Your task to perform on an android device: Empty the shopping cart on amazon.com. Image 0: 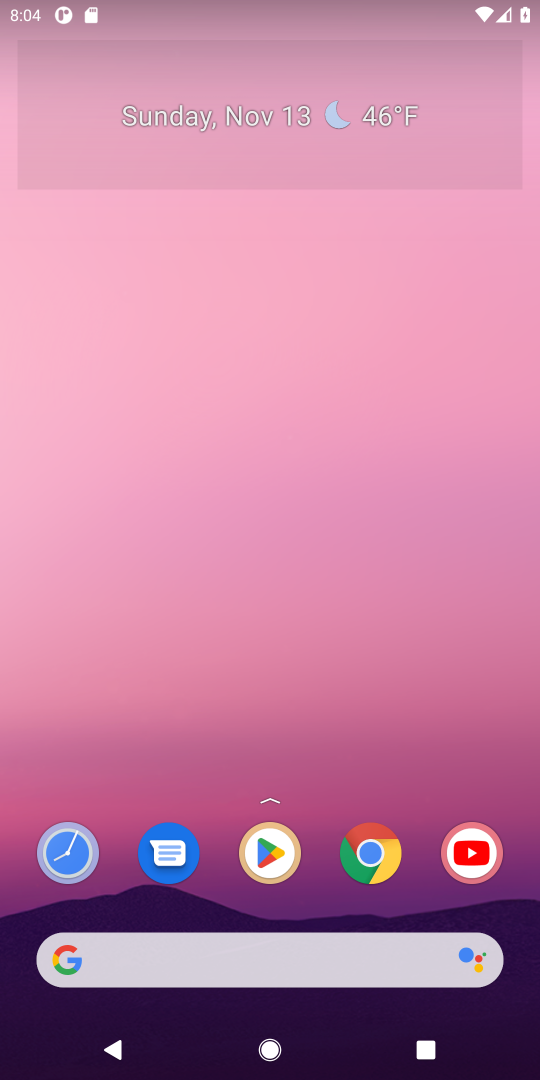
Step 0: press home button
Your task to perform on an android device: Empty the shopping cart on amazon.com. Image 1: 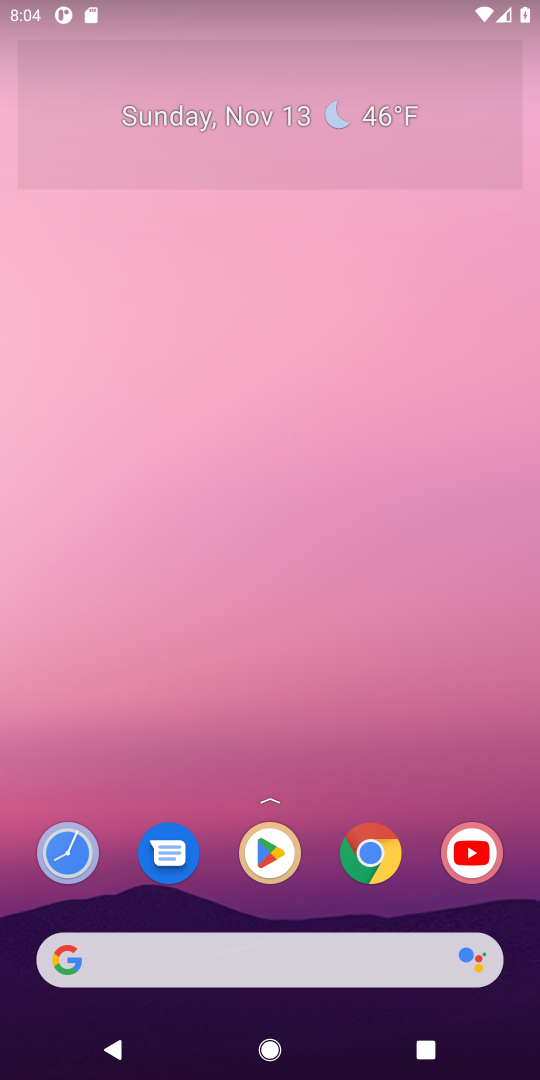
Step 1: click (278, 965)
Your task to perform on an android device: Empty the shopping cart on amazon.com. Image 2: 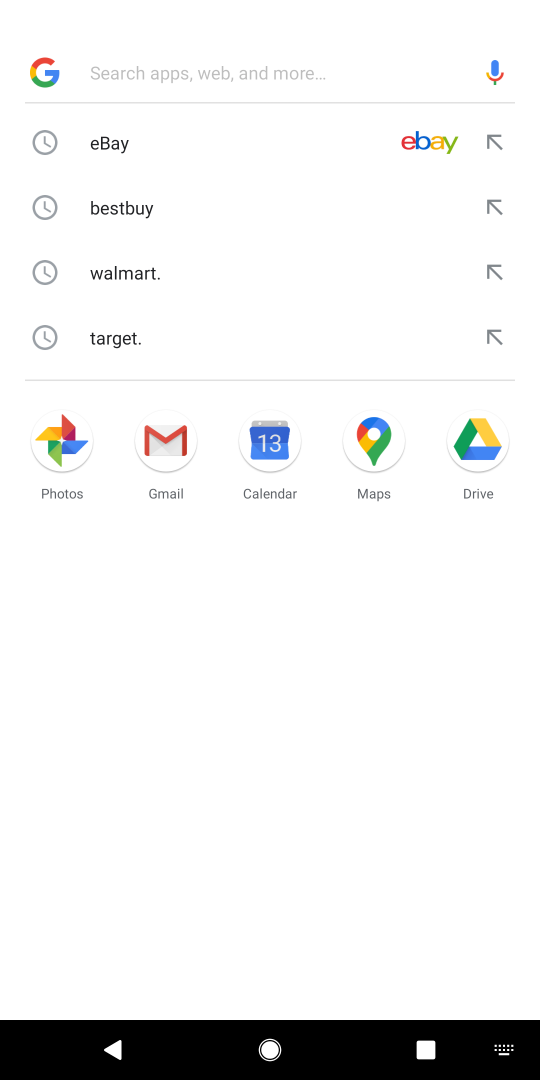
Step 2: type "amazon.com."
Your task to perform on an android device: Empty the shopping cart on amazon.com. Image 3: 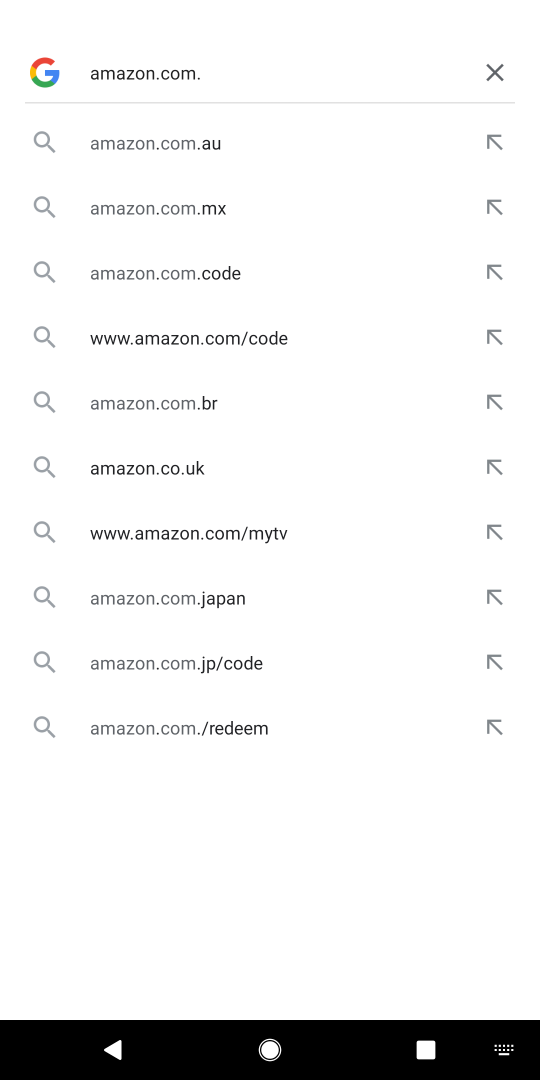
Step 3: press enter
Your task to perform on an android device: Empty the shopping cart on amazon.com. Image 4: 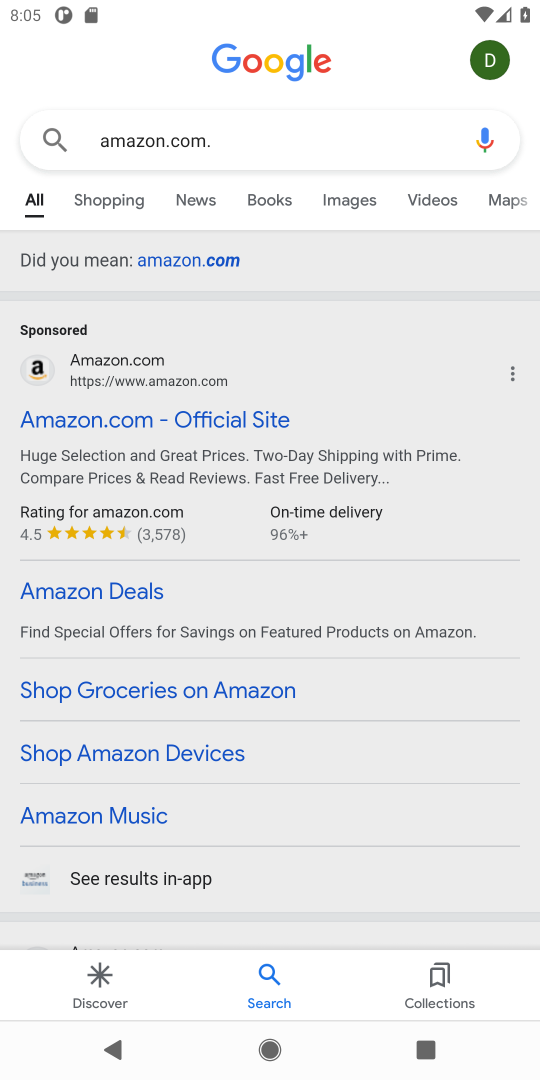
Step 4: click (226, 418)
Your task to perform on an android device: Empty the shopping cart on amazon.com. Image 5: 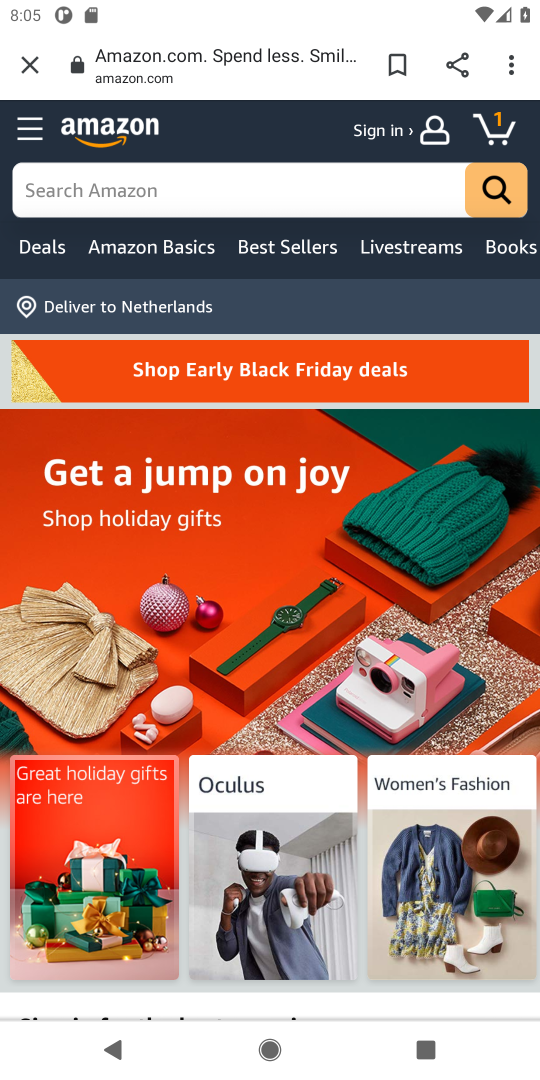
Step 5: click (496, 123)
Your task to perform on an android device: Empty the shopping cart on amazon.com. Image 6: 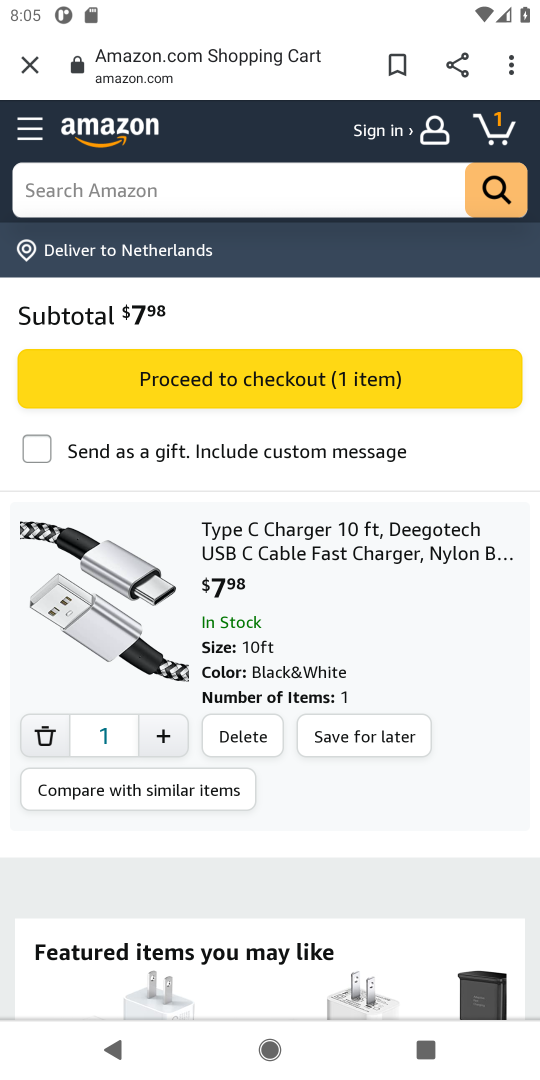
Step 6: click (41, 731)
Your task to perform on an android device: Empty the shopping cart on amazon.com. Image 7: 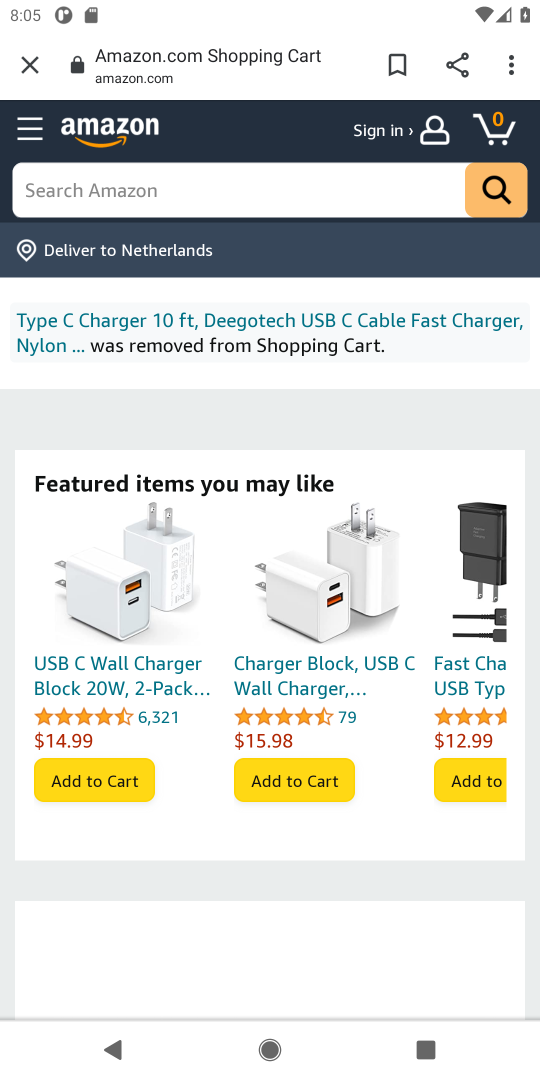
Step 7: task complete